Your task to perform on an android device: change keyboard looks Image 0: 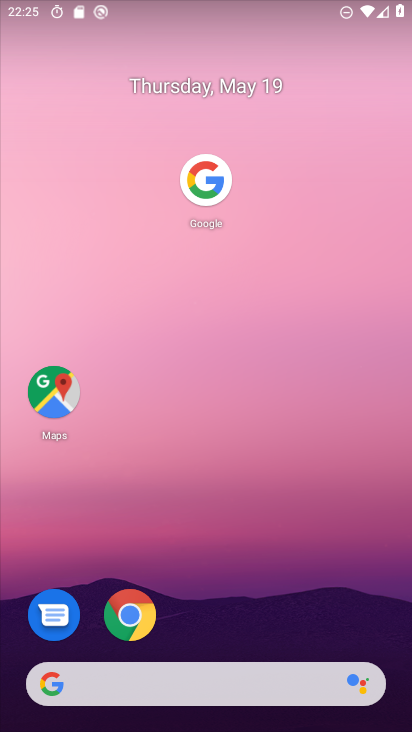
Step 0: drag from (213, 602) to (289, 65)
Your task to perform on an android device: change keyboard looks Image 1: 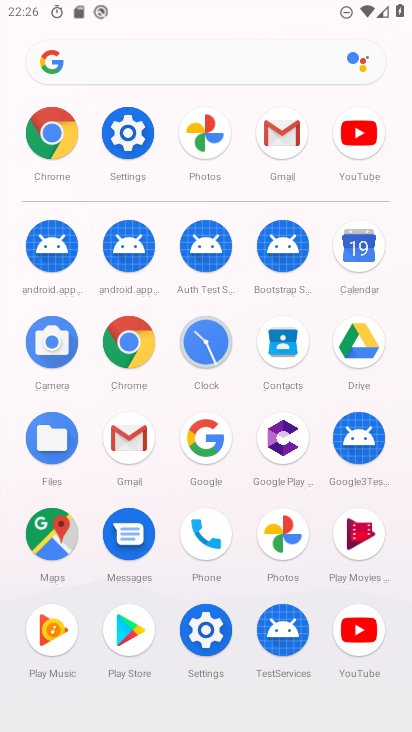
Step 1: click (121, 131)
Your task to perform on an android device: change keyboard looks Image 2: 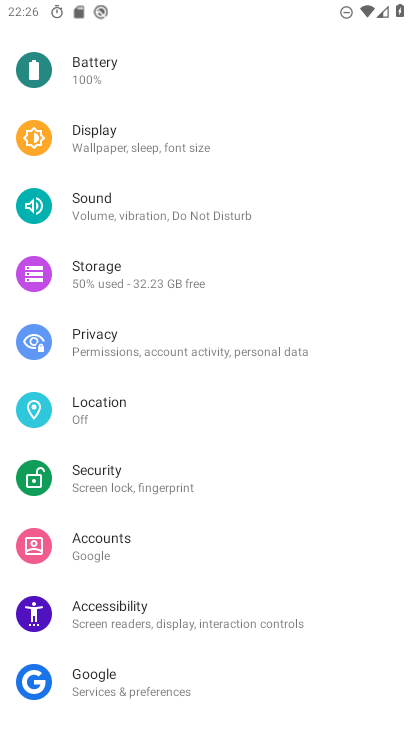
Step 2: drag from (190, 222) to (209, 534)
Your task to perform on an android device: change keyboard looks Image 3: 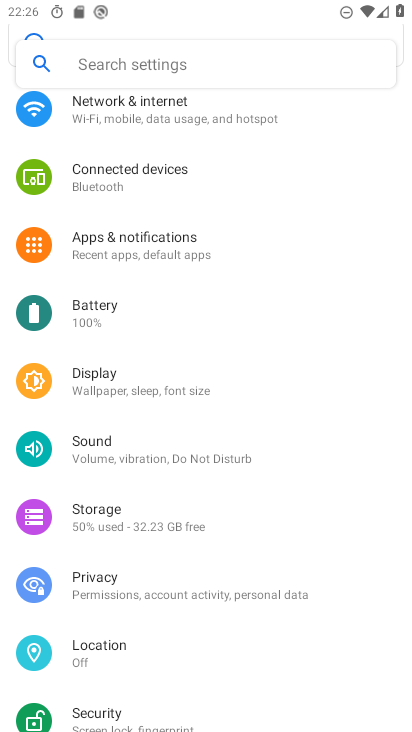
Step 3: drag from (213, 613) to (197, 157)
Your task to perform on an android device: change keyboard looks Image 4: 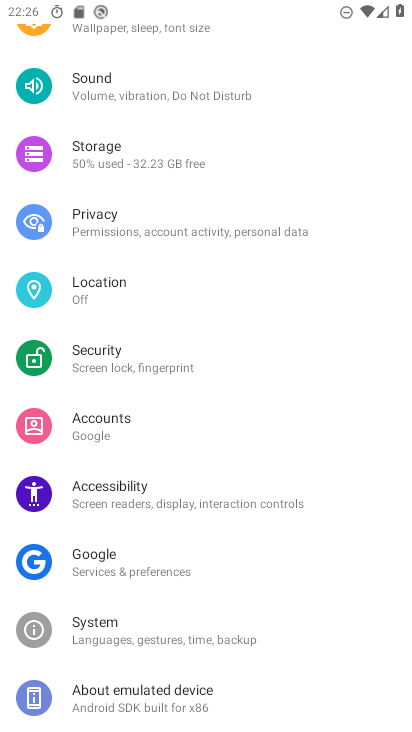
Step 4: click (123, 631)
Your task to perform on an android device: change keyboard looks Image 5: 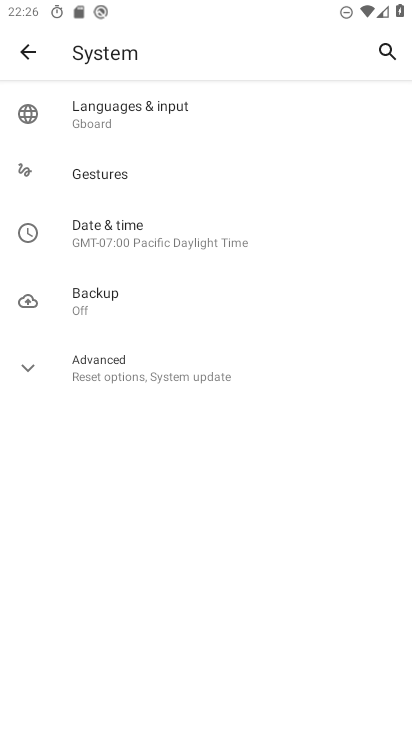
Step 5: click (134, 99)
Your task to perform on an android device: change keyboard looks Image 6: 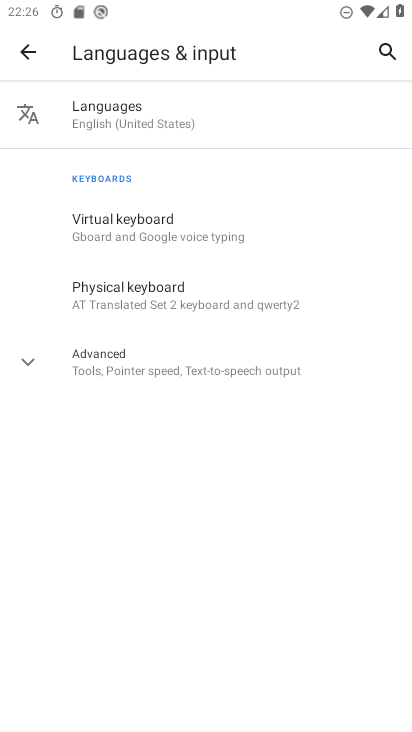
Step 6: click (117, 224)
Your task to perform on an android device: change keyboard looks Image 7: 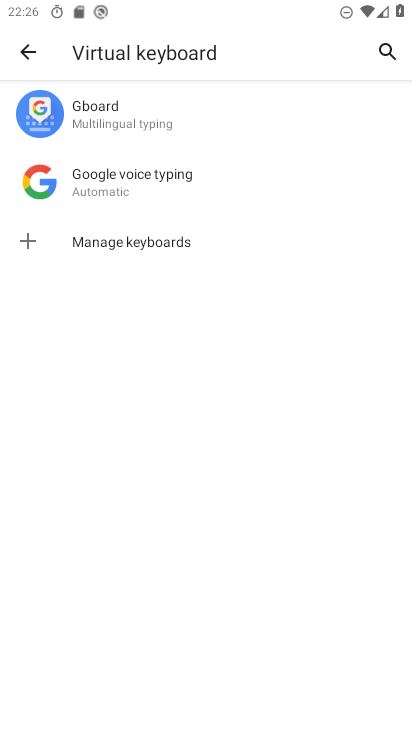
Step 7: click (111, 113)
Your task to perform on an android device: change keyboard looks Image 8: 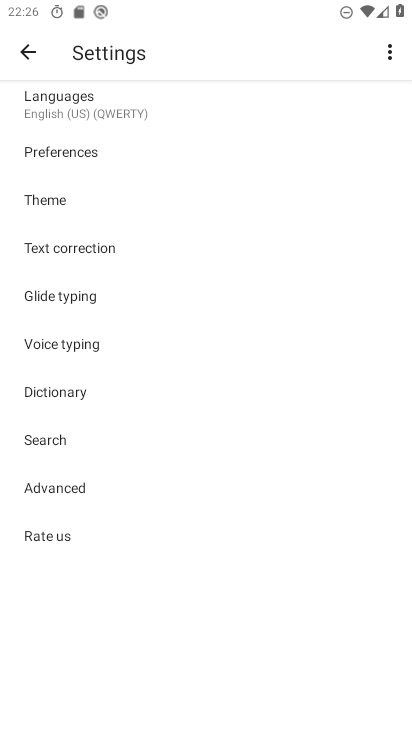
Step 8: click (68, 200)
Your task to perform on an android device: change keyboard looks Image 9: 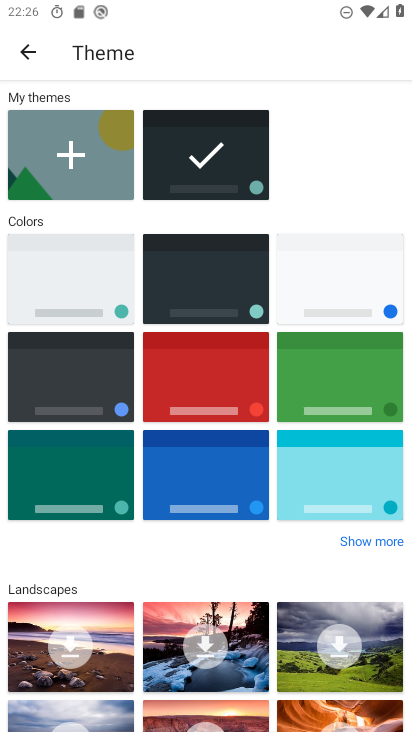
Step 9: click (176, 272)
Your task to perform on an android device: change keyboard looks Image 10: 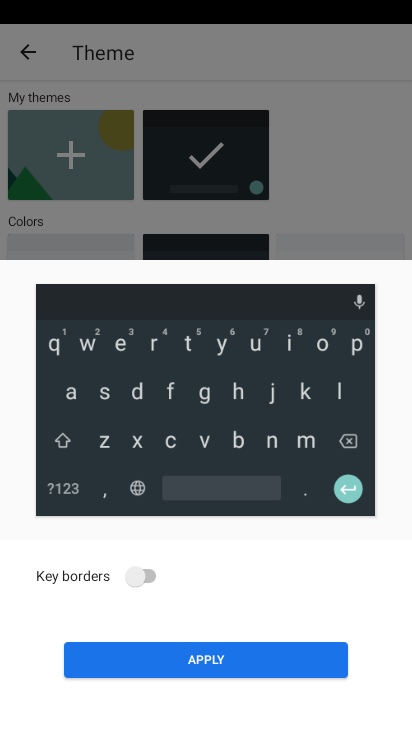
Step 10: click (189, 658)
Your task to perform on an android device: change keyboard looks Image 11: 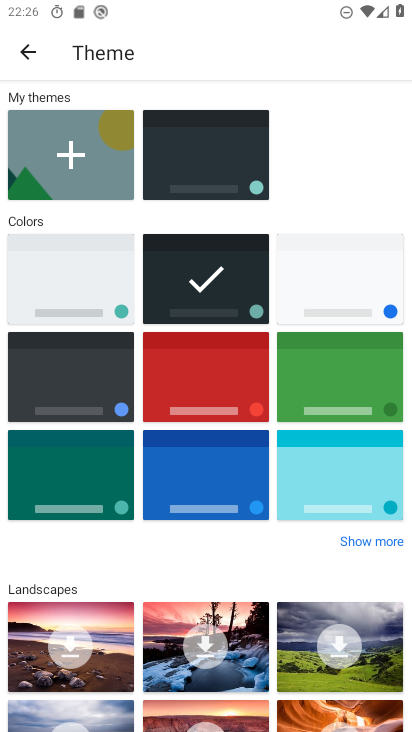
Step 11: task complete